Your task to perform on an android device: Turn on the flashlight Image 0: 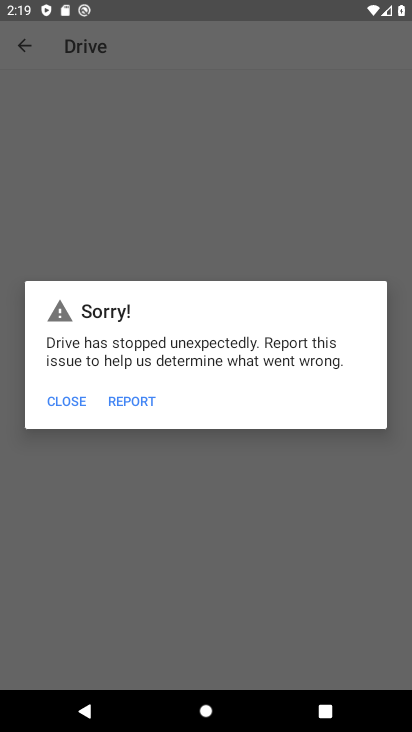
Step 0: press back button
Your task to perform on an android device: Turn on the flashlight Image 1: 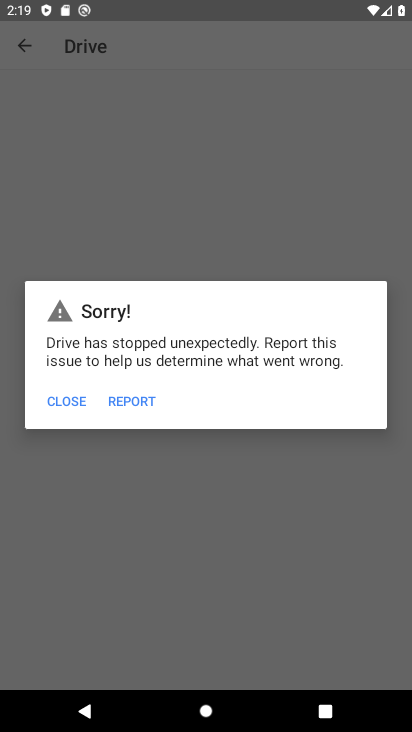
Step 1: press back button
Your task to perform on an android device: Turn on the flashlight Image 2: 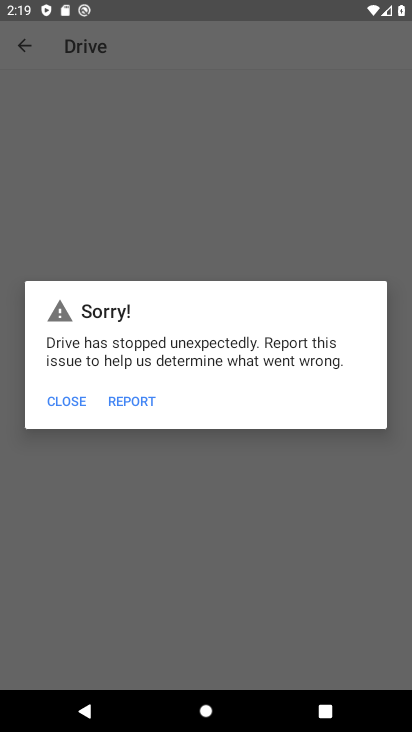
Step 2: press home button
Your task to perform on an android device: Turn on the flashlight Image 3: 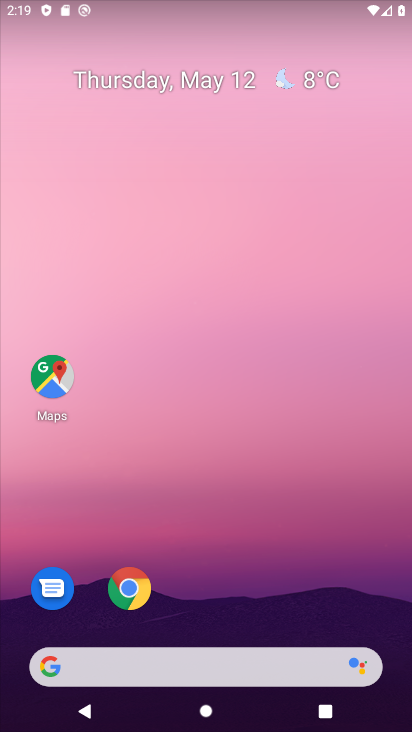
Step 3: drag from (269, 514) to (251, 13)
Your task to perform on an android device: Turn on the flashlight Image 4: 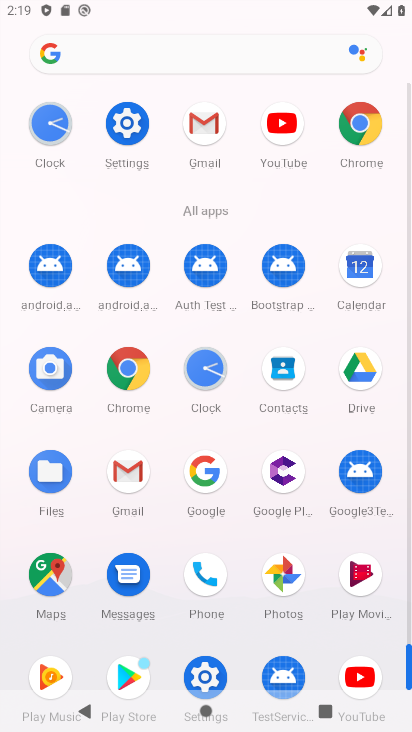
Step 4: drag from (9, 469) to (9, 157)
Your task to perform on an android device: Turn on the flashlight Image 5: 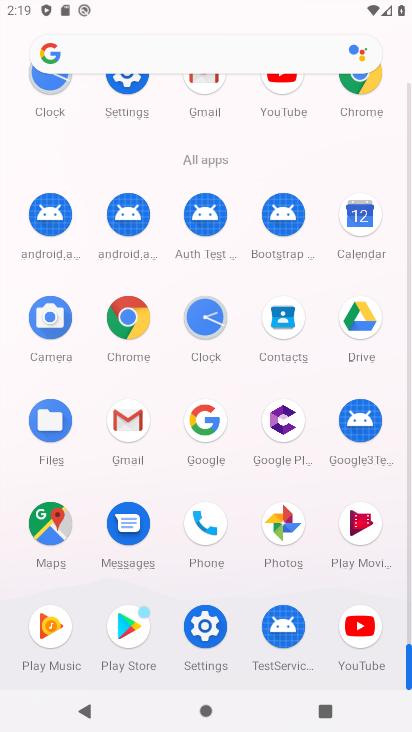
Step 5: drag from (19, 568) to (1, 398)
Your task to perform on an android device: Turn on the flashlight Image 6: 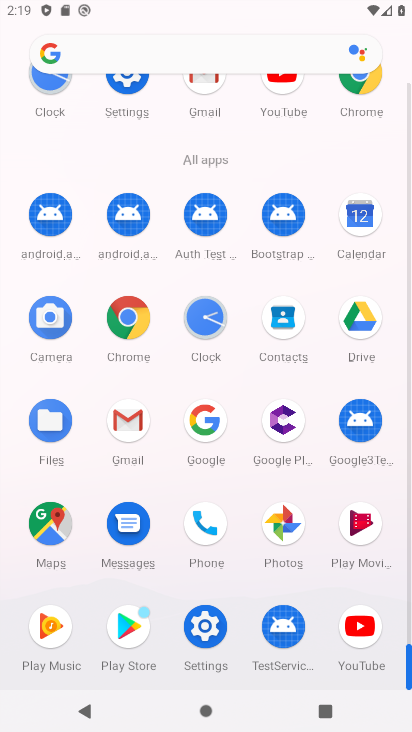
Step 6: click (204, 623)
Your task to perform on an android device: Turn on the flashlight Image 7: 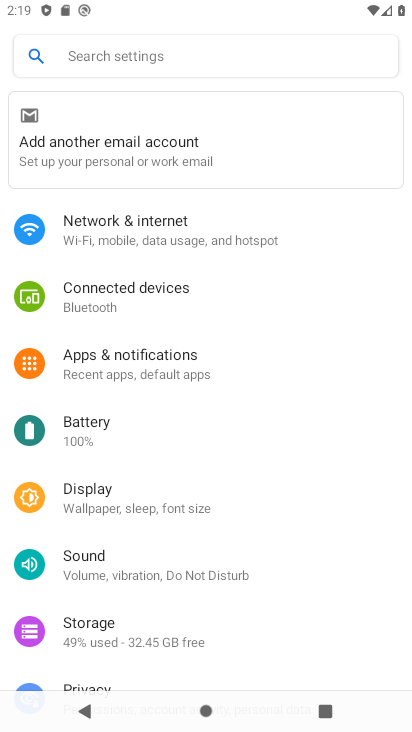
Step 7: drag from (302, 527) to (319, 212)
Your task to perform on an android device: Turn on the flashlight Image 8: 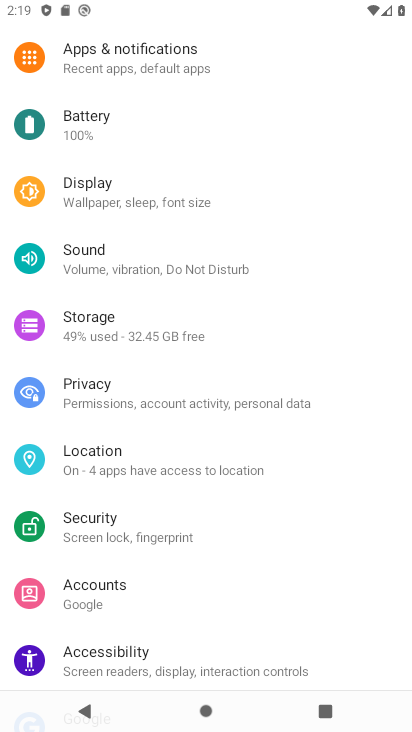
Step 8: drag from (349, 213) to (319, 543)
Your task to perform on an android device: Turn on the flashlight Image 9: 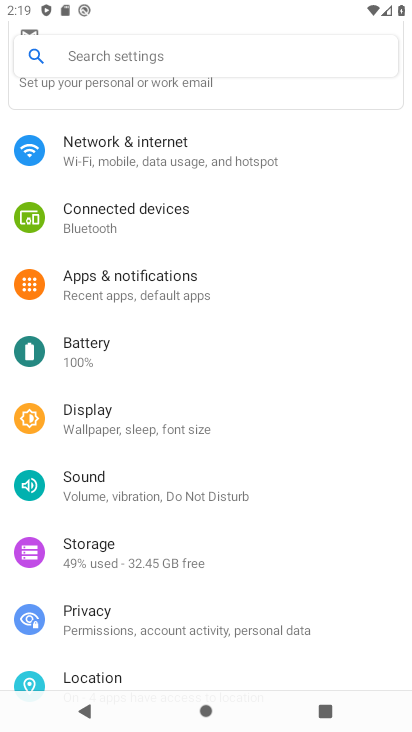
Step 9: click (210, 144)
Your task to perform on an android device: Turn on the flashlight Image 10: 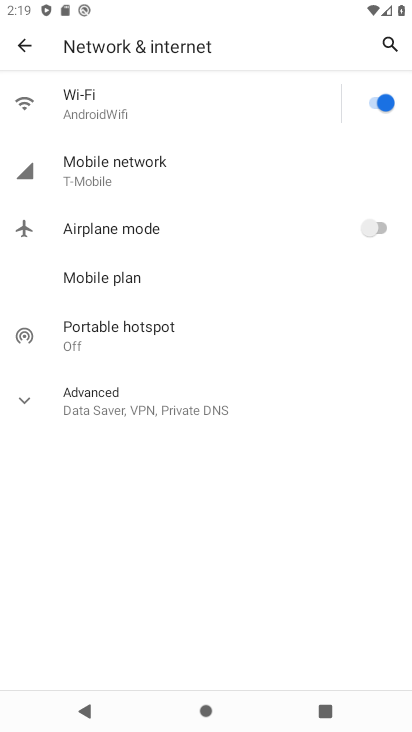
Step 10: click (36, 397)
Your task to perform on an android device: Turn on the flashlight Image 11: 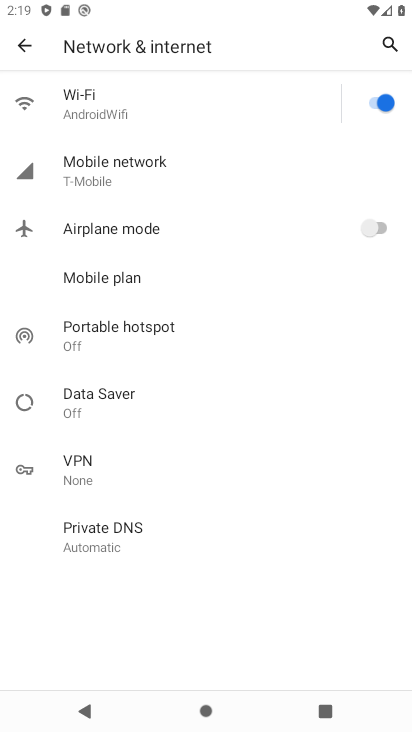
Step 11: drag from (171, 487) to (216, 156)
Your task to perform on an android device: Turn on the flashlight Image 12: 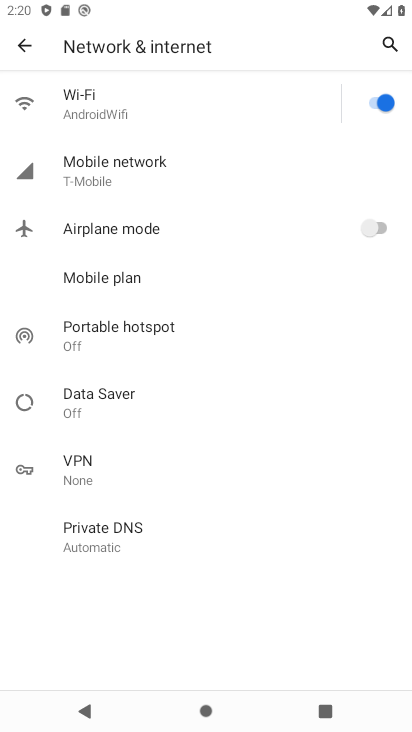
Step 12: click (38, 39)
Your task to perform on an android device: Turn on the flashlight Image 13: 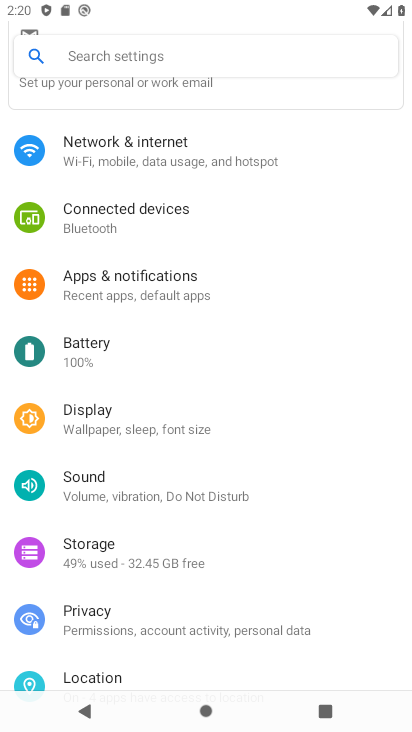
Step 13: click (202, 294)
Your task to perform on an android device: Turn on the flashlight Image 14: 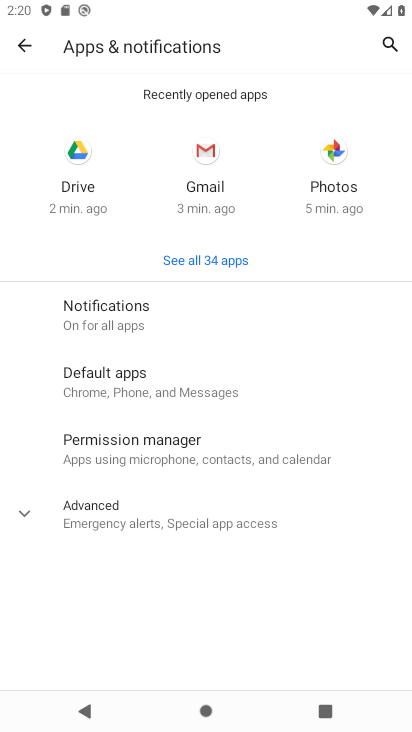
Step 14: click (28, 509)
Your task to perform on an android device: Turn on the flashlight Image 15: 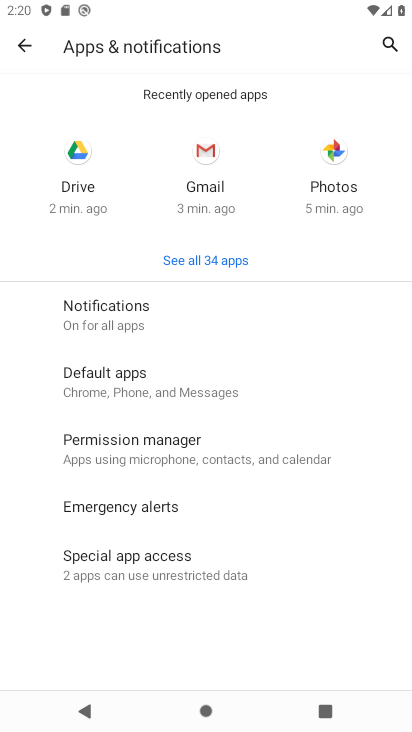
Step 15: drag from (241, 571) to (272, 226)
Your task to perform on an android device: Turn on the flashlight Image 16: 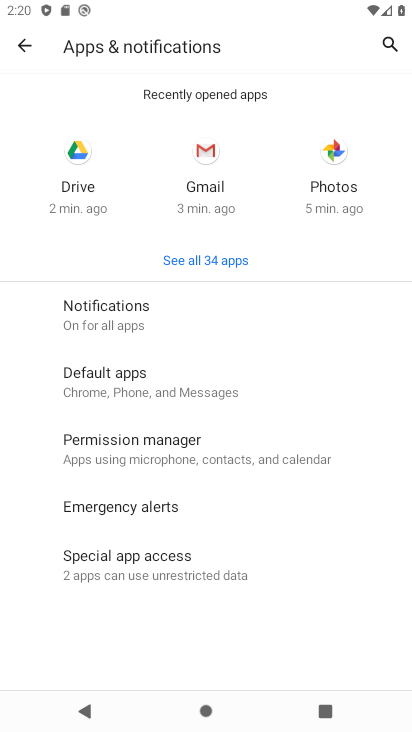
Step 16: drag from (263, 528) to (277, 215)
Your task to perform on an android device: Turn on the flashlight Image 17: 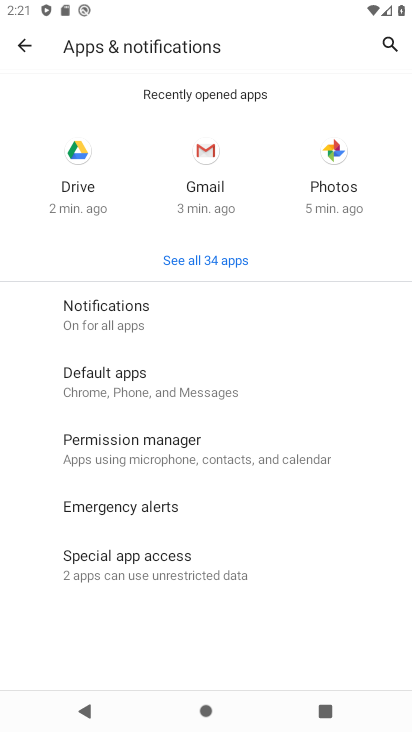
Step 17: click (12, 39)
Your task to perform on an android device: Turn on the flashlight Image 18: 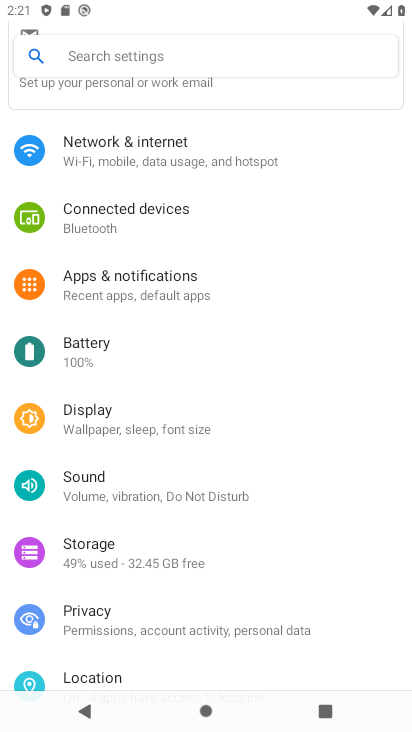
Step 18: click (185, 171)
Your task to perform on an android device: Turn on the flashlight Image 19: 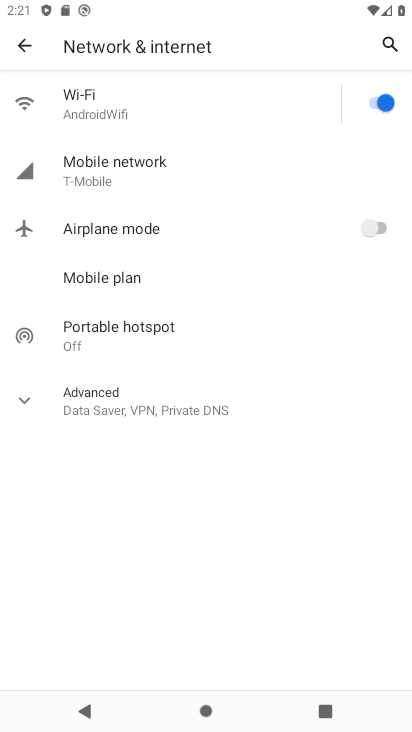
Step 19: task complete